Your task to perform on an android device: Show me popular games on the Play Store Image 0: 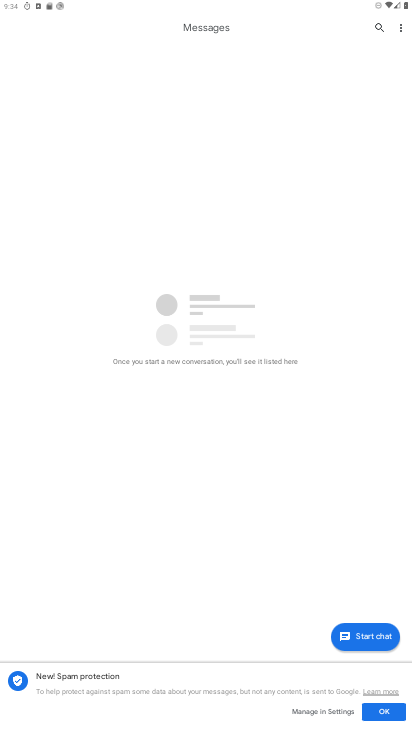
Step 0: press home button
Your task to perform on an android device: Show me popular games on the Play Store Image 1: 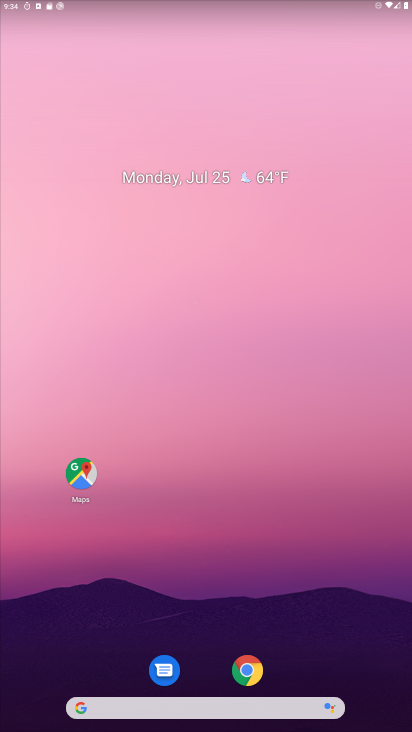
Step 1: drag from (359, 652) to (185, 18)
Your task to perform on an android device: Show me popular games on the Play Store Image 2: 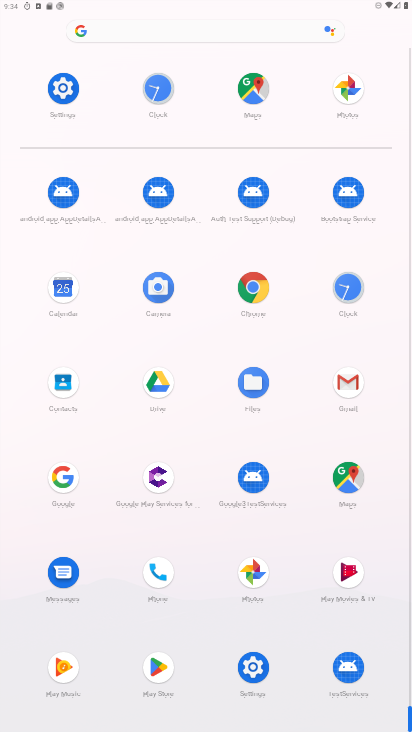
Step 2: click (153, 659)
Your task to perform on an android device: Show me popular games on the Play Store Image 3: 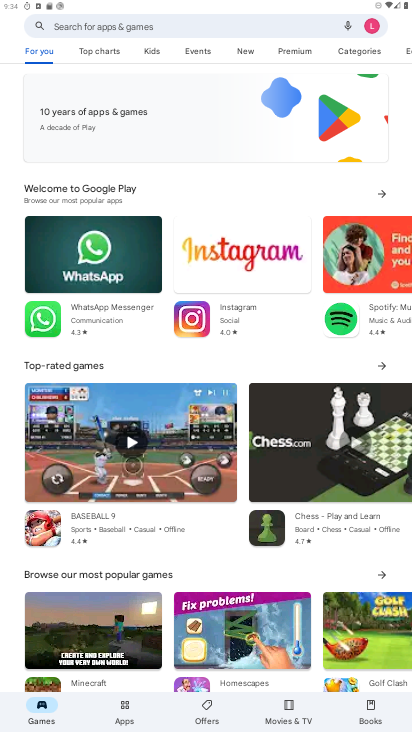
Step 3: click (152, 12)
Your task to perform on an android device: Show me popular games on the Play Store Image 4: 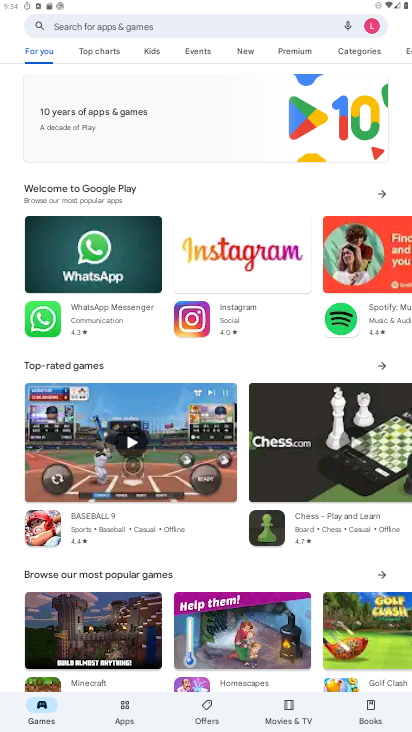
Step 4: click (136, 23)
Your task to perform on an android device: Show me popular games on the Play Store Image 5: 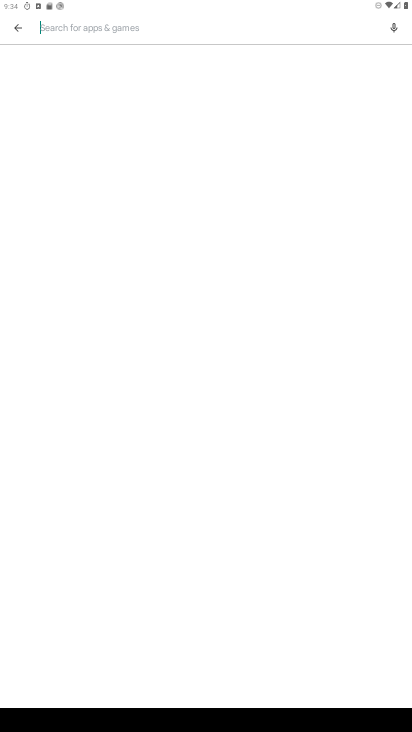
Step 5: type "popular games"
Your task to perform on an android device: Show me popular games on the Play Store Image 6: 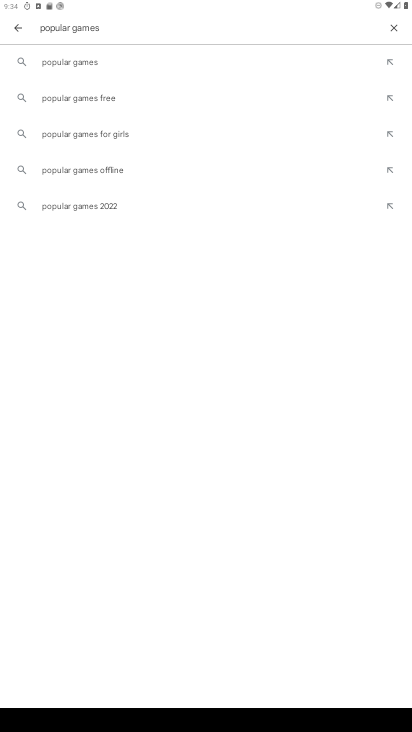
Step 6: click (74, 62)
Your task to perform on an android device: Show me popular games on the Play Store Image 7: 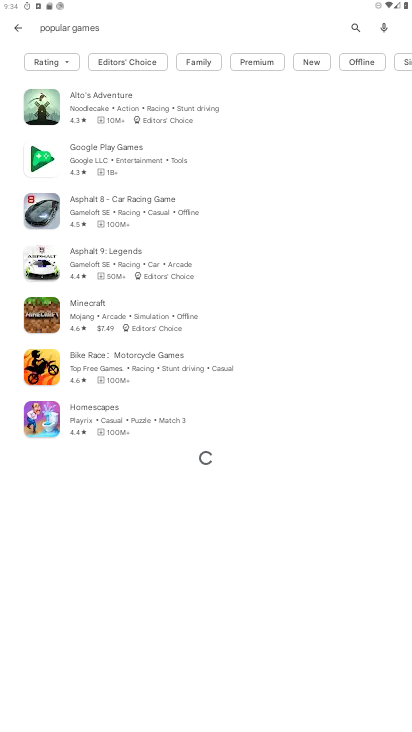
Step 7: task complete